Your task to perform on an android device: Open wifi settings Image 0: 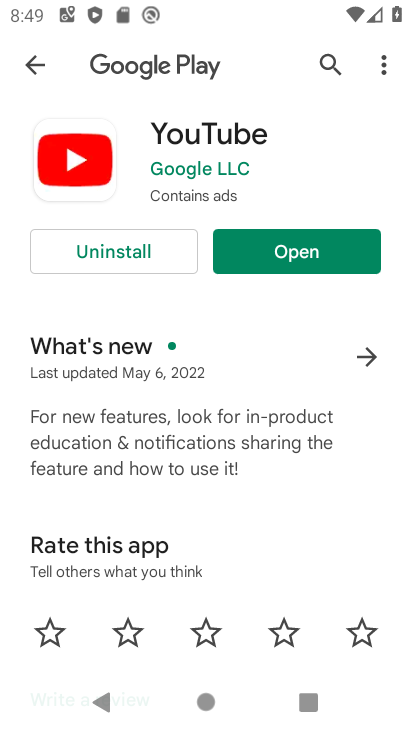
Step 0: press home button
Your task to perform on an android device: Open wifi settings Image 1: 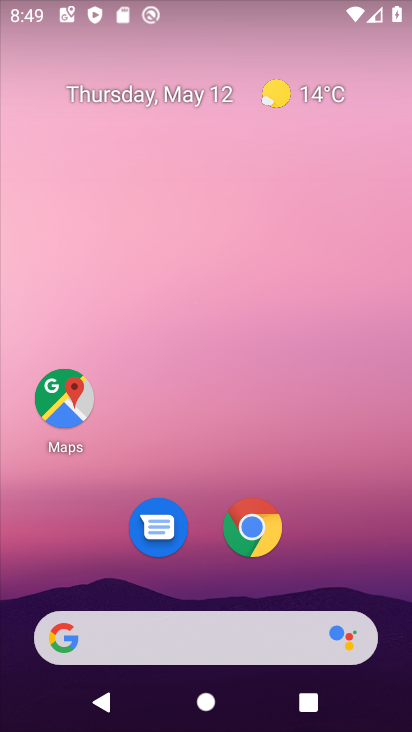
Step 1: drag from (340, 577) to (310, 101)
Your task to perform on an android device: Open wifi settings Image 2: 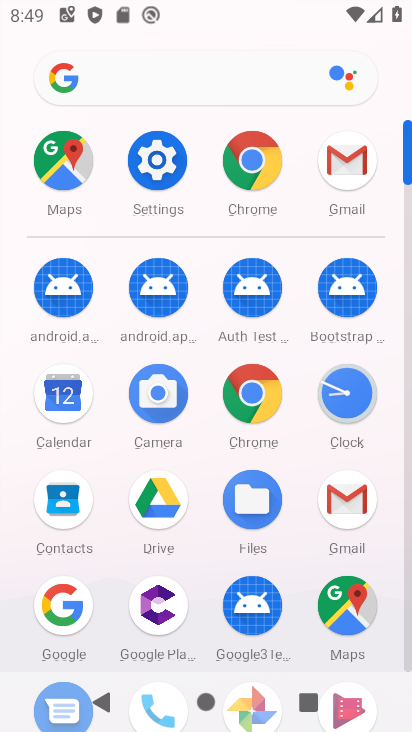
Step 2: click (161, 142)
Your task to perform on an android device: Open wifi settings Image 3: 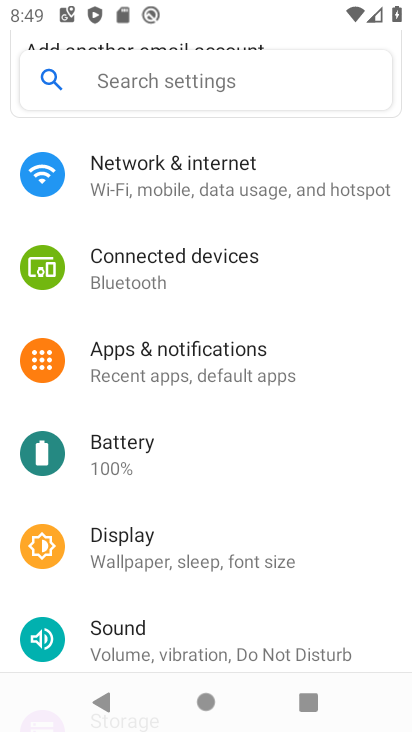
Step 3: click (162, 154)
Your task to perform on an android device: Open wifi settings Image 4: 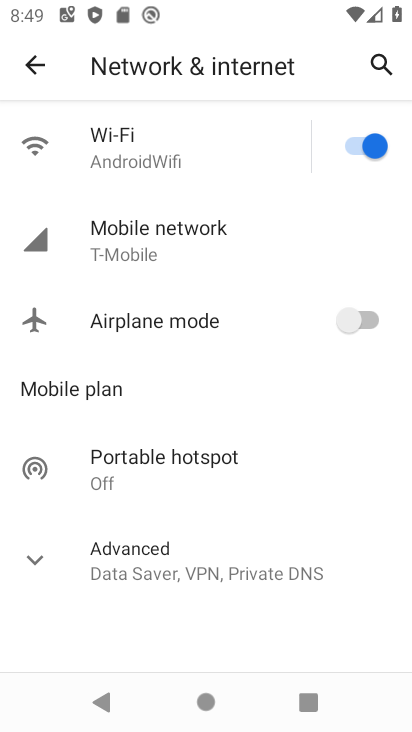
Step 4: click (53, 144)
Your task to perform on an android device: Open wifi settings Image 5: 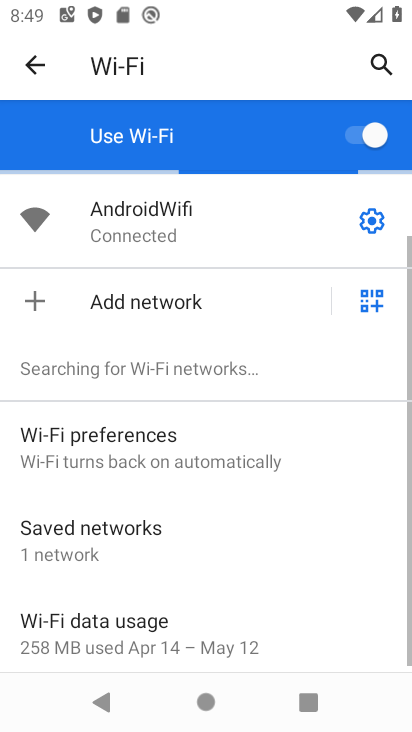
Step 5: task complete